Your task to perform on an android device: Go to wifi settings Image 0: 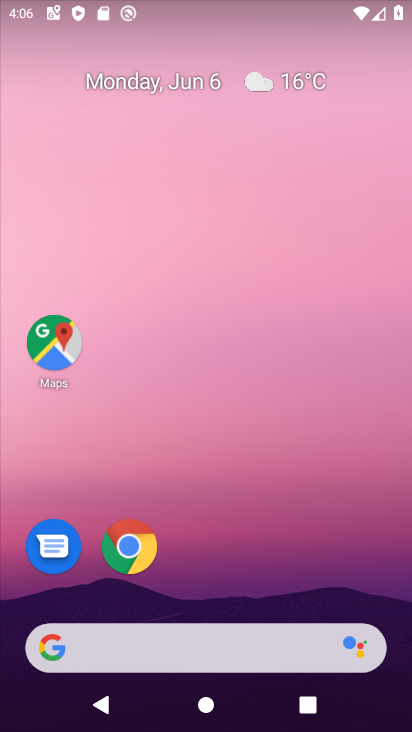
Step 0: click (292, 0)
Your task to perform on an android device: Go to wifi settings Image 1: 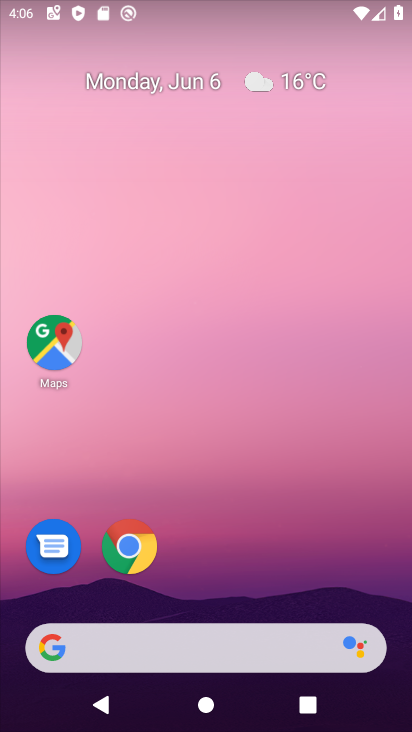
Step 1: drag from (329, 535) to (362, 76)
Your task to perform on an android device: Go to wifi settings Image 2: 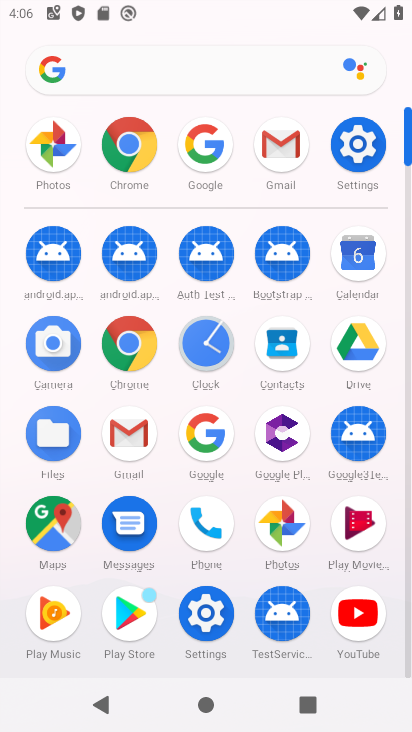
Step 2: click (350, 140)
Your task to perform on an android device: Go to wifi settings Image 3: 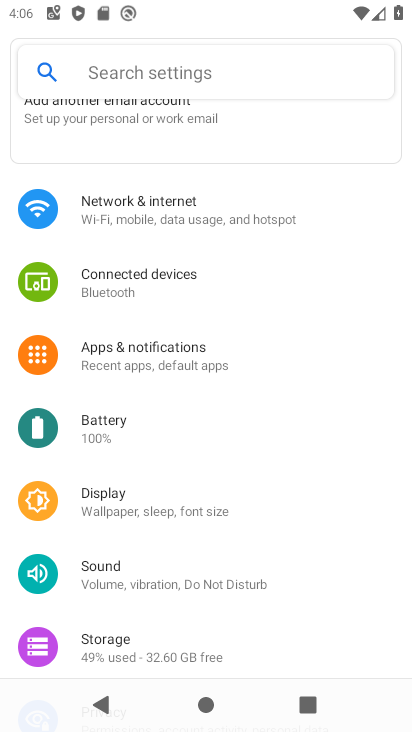
Step 3: drag from (350, 140) to (268, 658)
Your task to perform on an android device: Go to wifi settings Image 4: 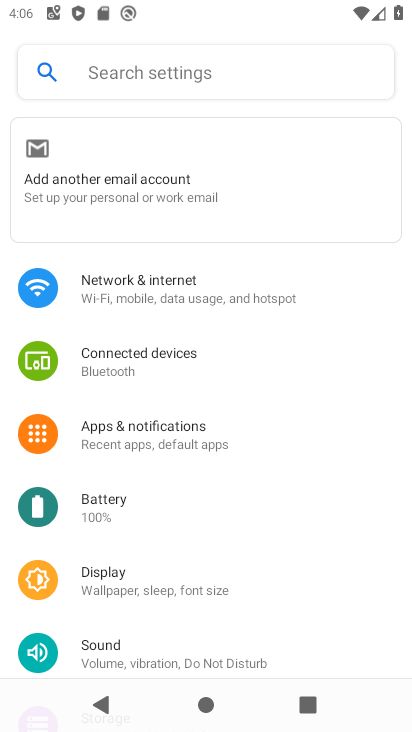
Step 4: click (210, 295)
Your task to perform on an android device: Go to wifi settings Image 5: 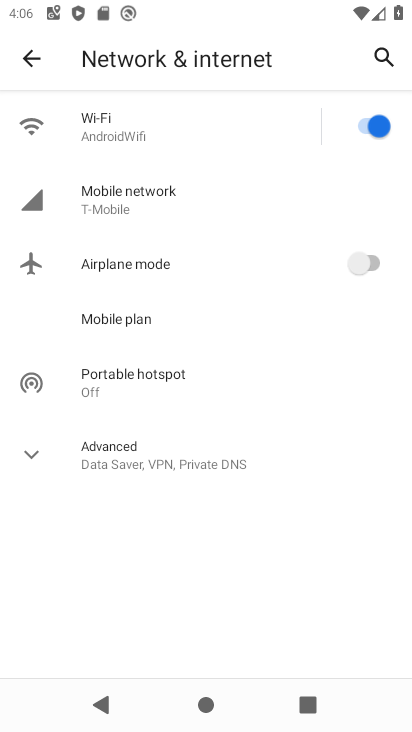
Step 5: click (99, 109)
Your task to perform on an android device: Go to wifi settings Image 6: 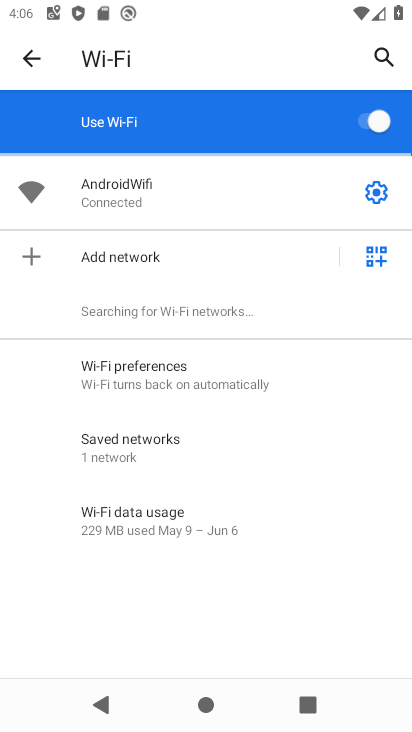
Step 6: task complete